Your task to perform on an android device: change notification settings in the gmail app Image 0: 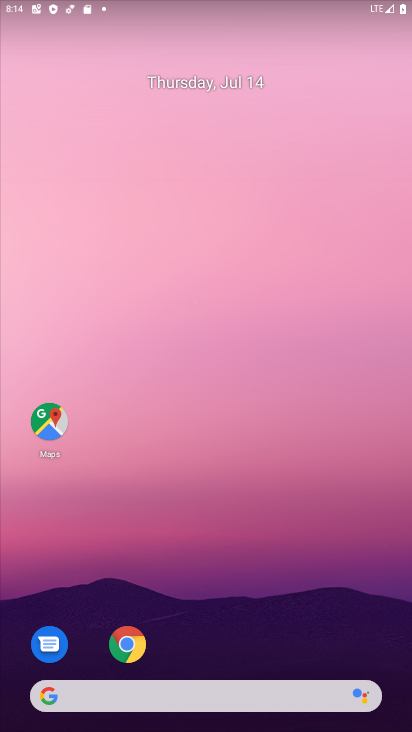
Step 0: drag from (181, 649) to (66, 463)
Your task to perform on an android device: change notification settings in the gmail app Image 1: 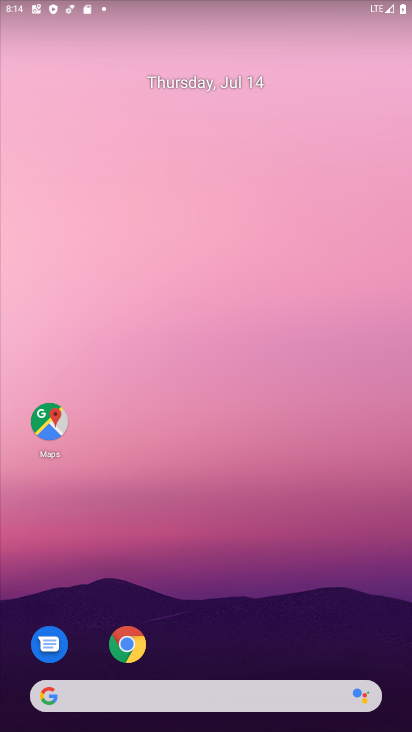
Step 1: drag from (181, 620) to (272, 156)
Your task to perform on an android device: change notification settings in the gmail app Image 2: 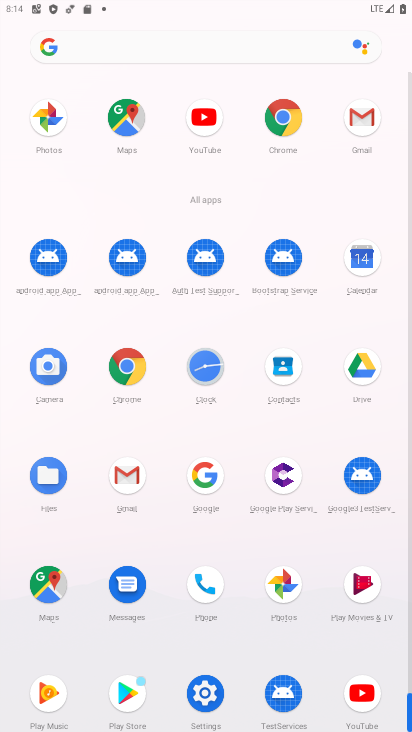
Step 2: click (119, 468)
Your task to perform on an android device: change notification settings in the gmail app Image 3: 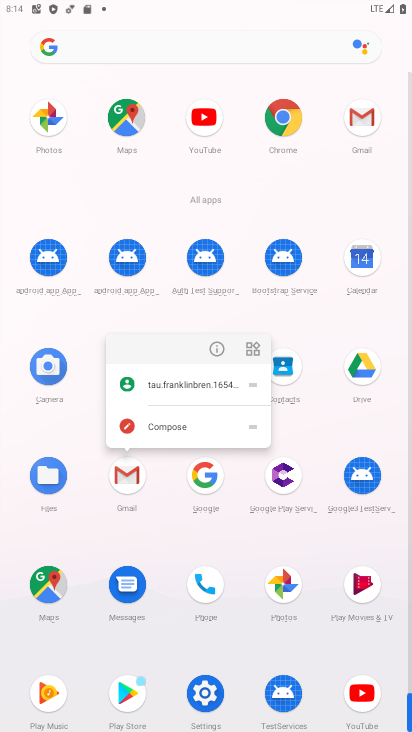
Step 3: click (218, 346)
Your task to perform on an android device: change notification settings in the gmail app Image 4: 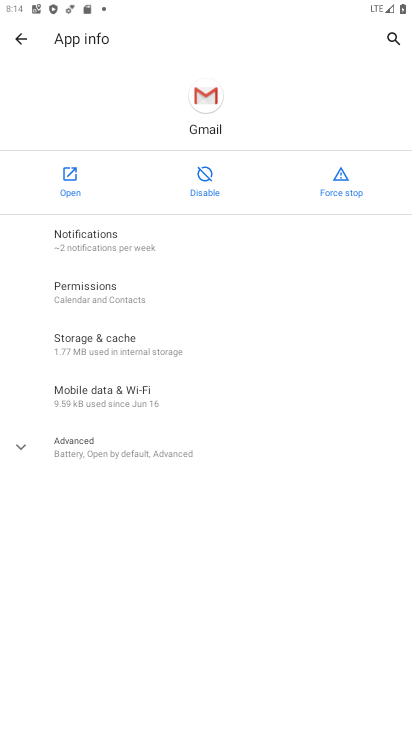
Step 4: click (65, 165)
Your task to perform on an android device: change notification settings in the gmail app Image 5: 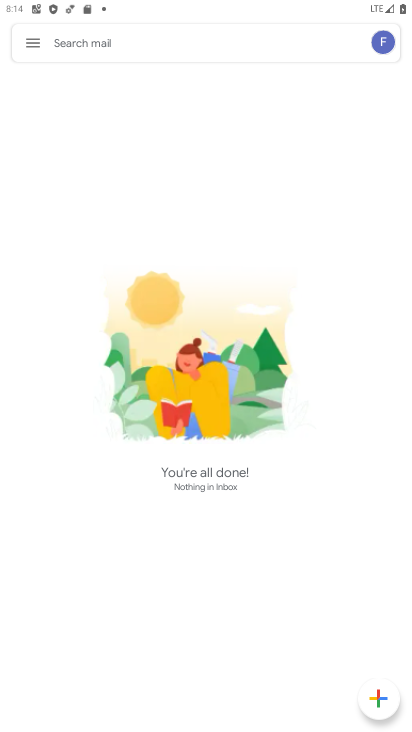
Step 5: drag from (158, 530) to (239, 166)
Your task to perform on an android device: change notification settings in the gmail app Image 6: 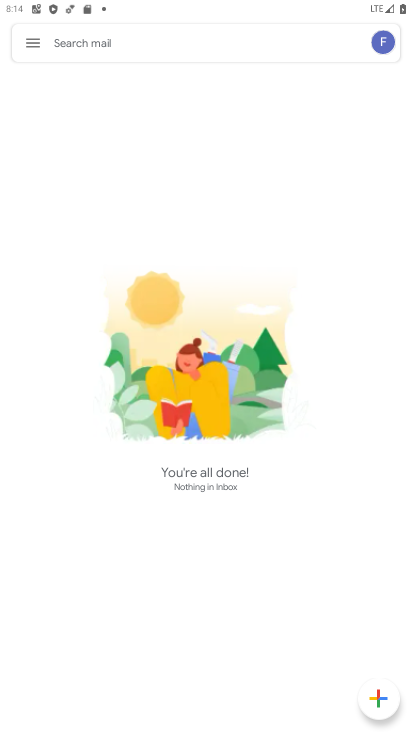
Step 6: drag from (208, 528) to (232, 354)
Your task to perform on an android device: change notification settings in the gmail app Image 7: 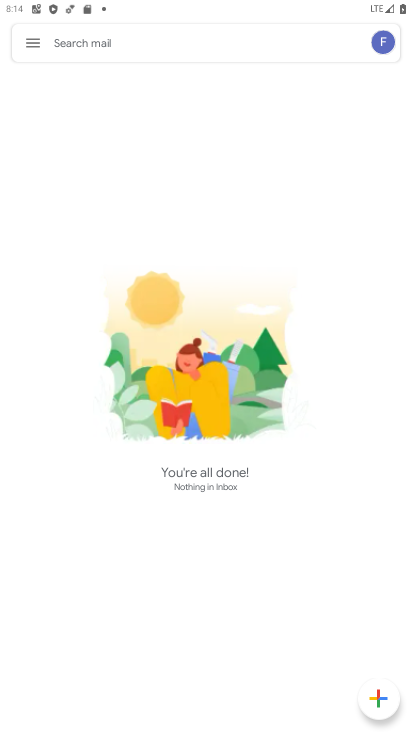
Step 7: drag from (271, 556) to (352, 279)
Your task to perform on an android device: change notification settings in the gmail app Image 8: 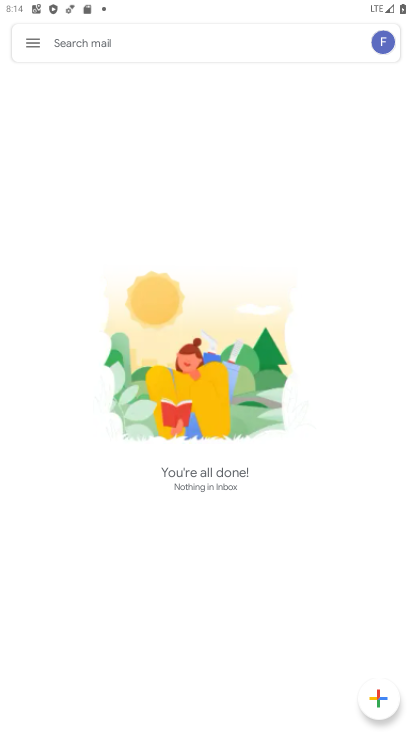
Step 8: drag from (266, 422) to (283, 334)
Your task to perform on an android device: change notification settings in the gmail app Image 9: 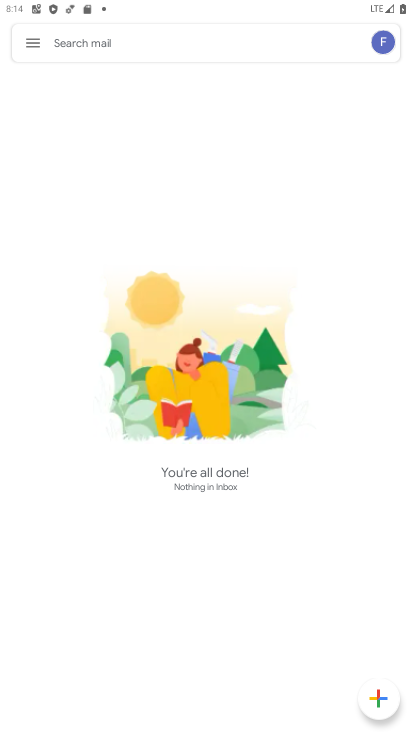
Step 9: drag from (305, 496) to (303, 247)
Your task to perform on an android device: change notification settings in the gmail app Image 10: 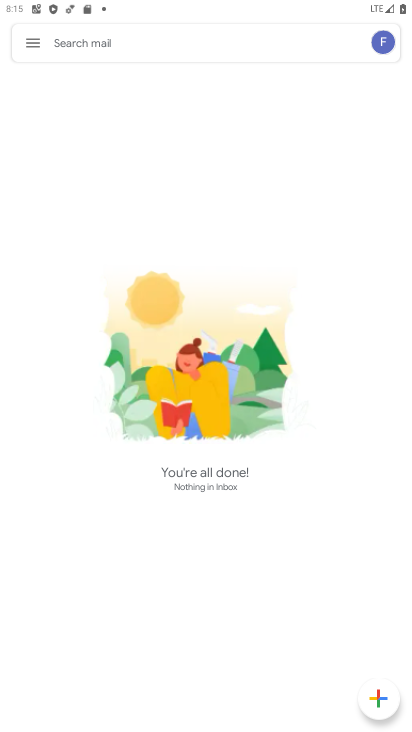
Step 10: click (33, 41)
Your task to perform on an android device: change notification settings in the gmail app Image 11: 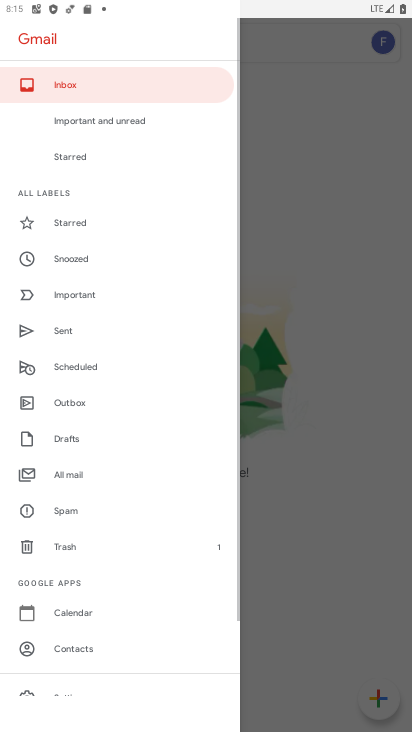
Step 11: drag from (164, 364) to (204, 173)
Your task to perform on an android device: change notification settings in the gmail app Image 12: 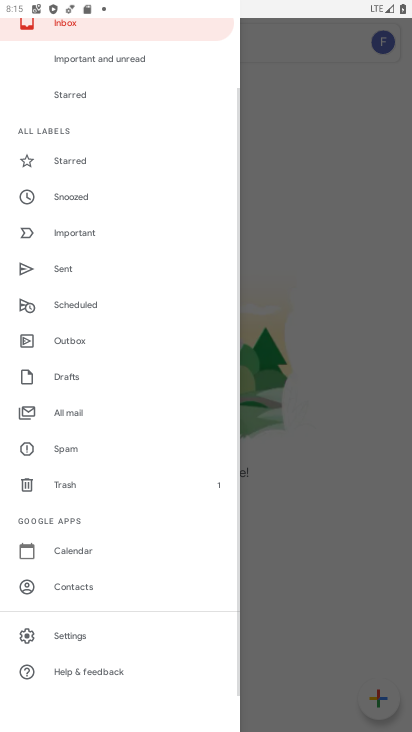
Step 12: drag from (129, 634) to (167, 318)
Your task to perform on an android device: change notification settings in the gmail app Image 13: 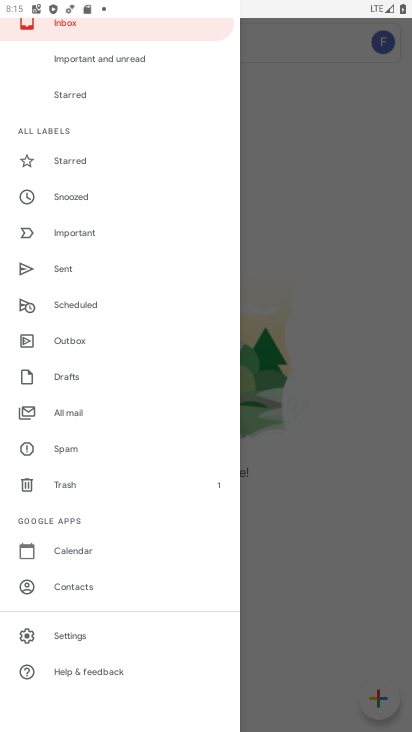
Step 13: click (75, 633)
Your task to perform on an android device: change notification settings in the gmail app Image 14: 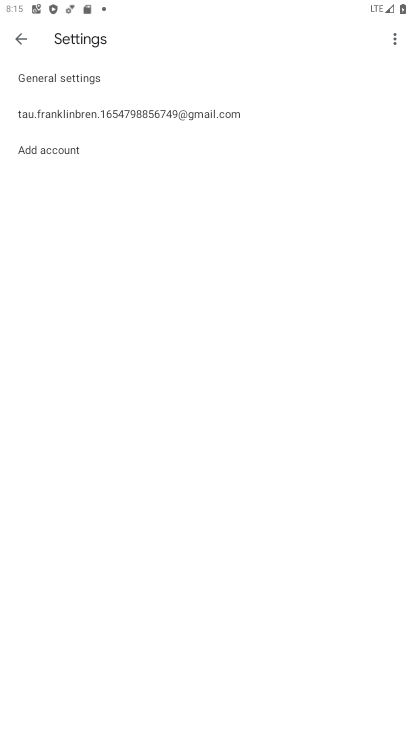
Step 14: click (111, 135)
Your task to perform on an android device: change notification settings in the gmail app Image 15: 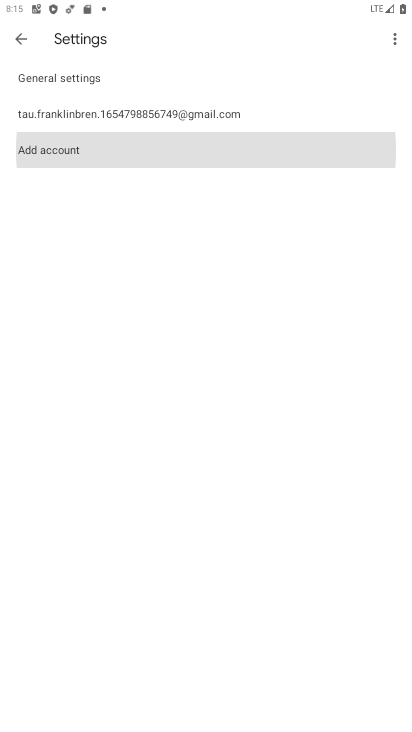
Step 15: click (110, 129)
Your task to perform on an android device: change notification settings in the gmail app Image 16: 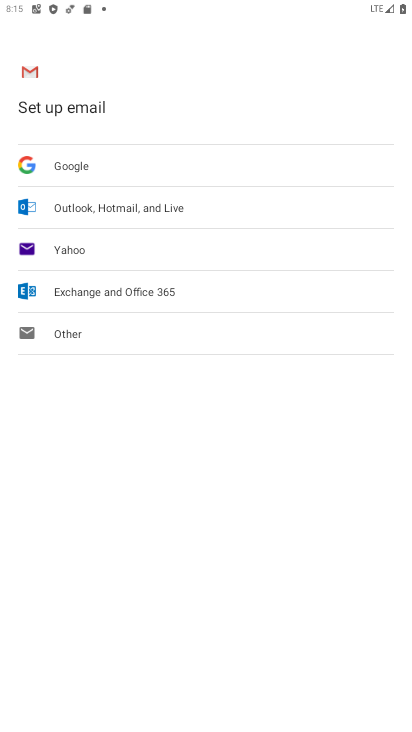
Step 16: press back button
Your task to perform on an android device: change notification settings in the gmail app Image 17: 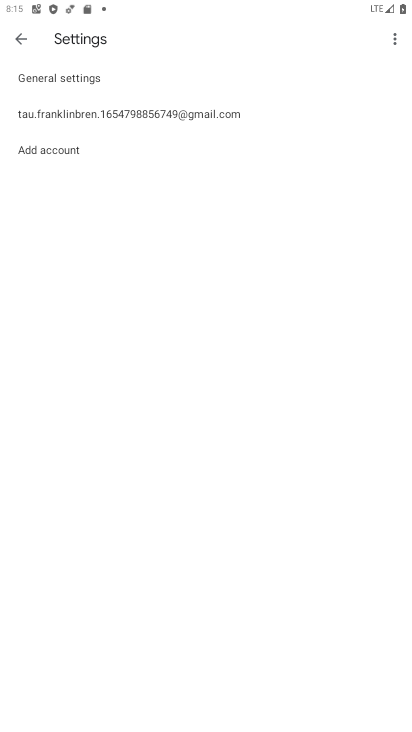
Step 17: click (167, 107)
Your task to perform on an android device: change notification settings in the gmail app Image 18: 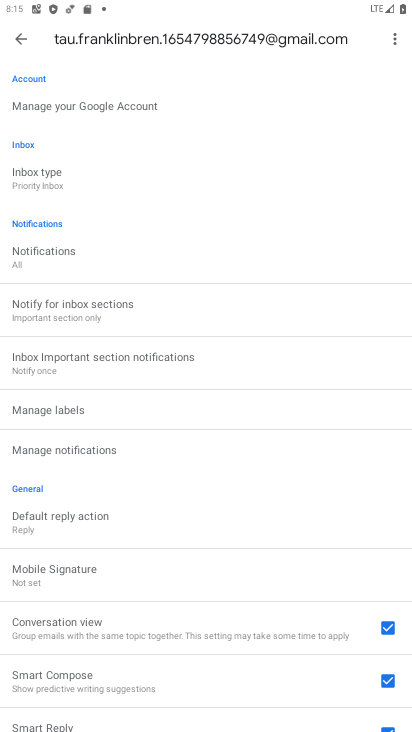
Step 18: click (106, 446)
Your task to perform on an android device: change notification settings in the gmail app Image 19: 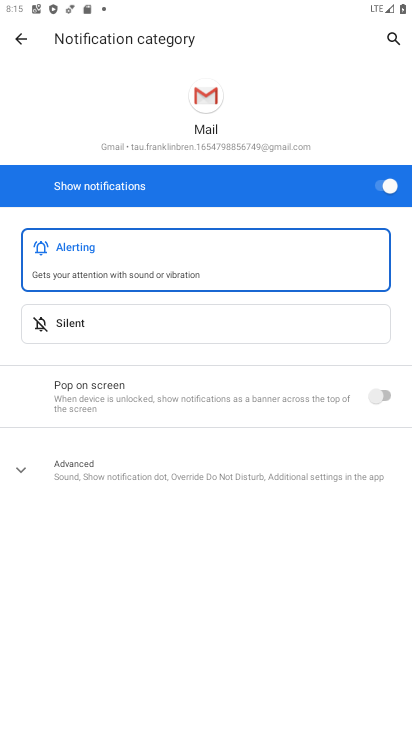
Step 19: drag from (140, 408) to (202, 96)
Your task to perform on an android device: change notification settings in the gmail app Image 20: 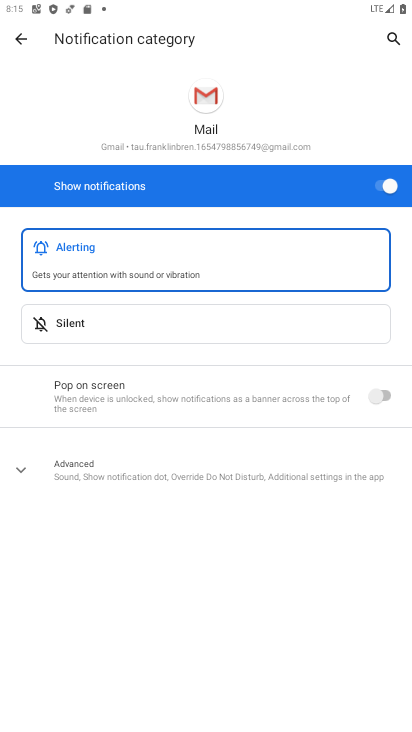
Step 20: drag from (212, 177) to (226, 691)
Your task to perform on an android device: change notification settings in the gmail app Image 21: 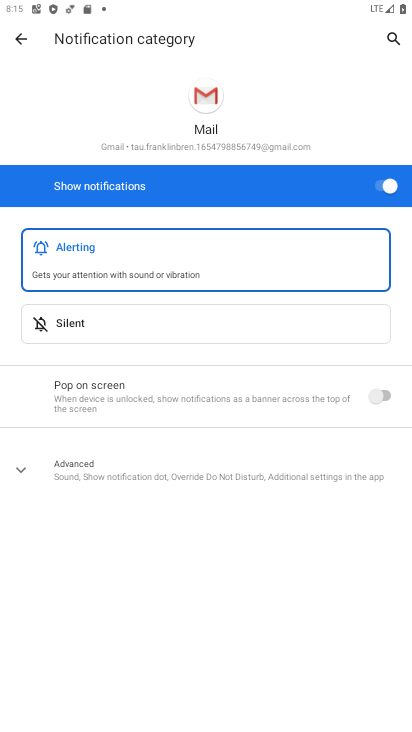
Step 21: click (385, 172)
Your task to perform on an android device: change notification settings in the gmail app Image 22: 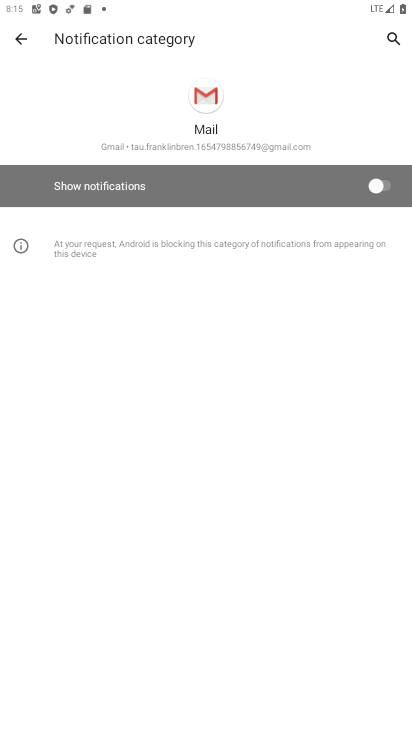
Step 22: task complete